Your task to perform on an android device: Clear the shopping cart on amazon. Search for panasonic triple a on amazon, select the first entry, add it to the cart, then select checkout. Image 0: 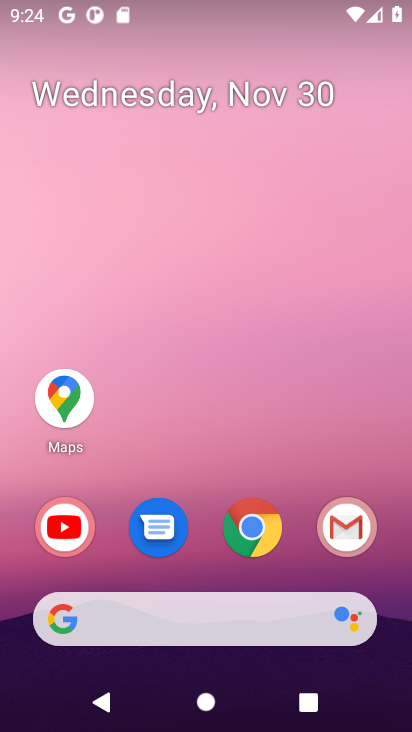
Step 0: click (247, 532)
Your task to perform on an android device: Clear the shopping cart on amazon. Search for panasonic triple a on amazon, select the first entry, add it to the cart, then select checkout. Image 1: 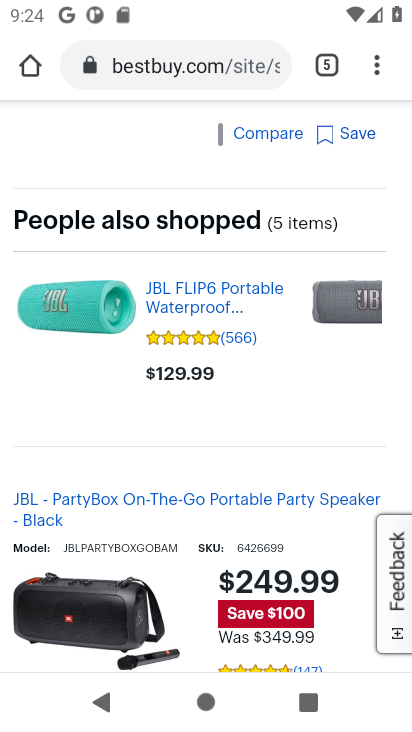
Step 1: click (203, 67)
Your task to perform on an android device: Clear the shopping cart on amazon. Search for panasonic triple a on amazon, select the first entry, add it to the cart, then select checkout. Image 2: 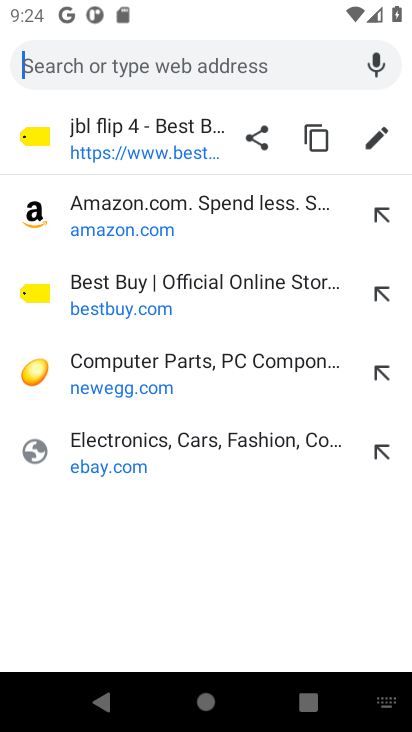
Step 2: click (166, 203)
Your task to perform on an android device: Clear the shopping cart on amazon. Search for panasonic triple a on amazon, select the first entry, add it to the cart, then select checkout. Image 3: 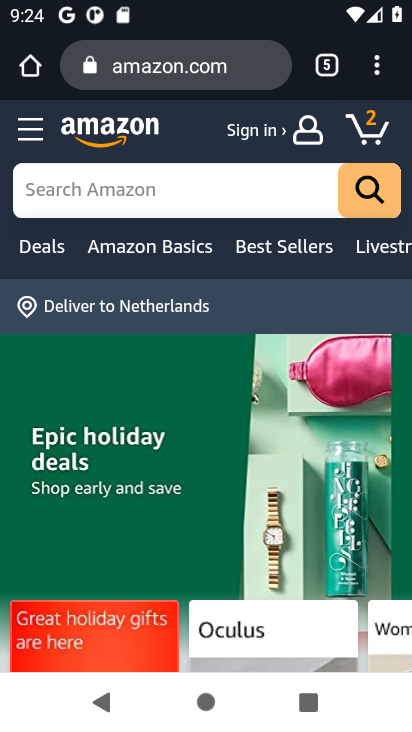
Step 3: click (368, 118)
Your task to perform on an android device: Clear the shopping cart on amazon. Search for panasonic triple a on amazon, select the first entry, add it to the cart, then select checkout. Image 4: 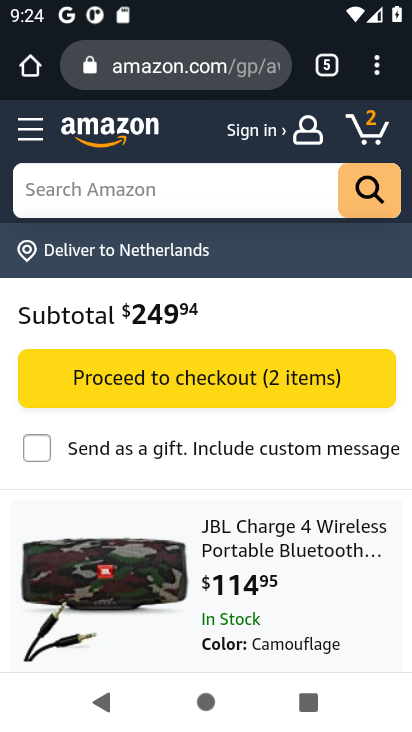
Step 4: drag from (316, 618) to (331, 183)
Your task to perform on an android device: Clear the shopping cart on amazon. Search for panasonic triple a on amazon, select the first entry, add it to the cart, then select checkout. Image 5: 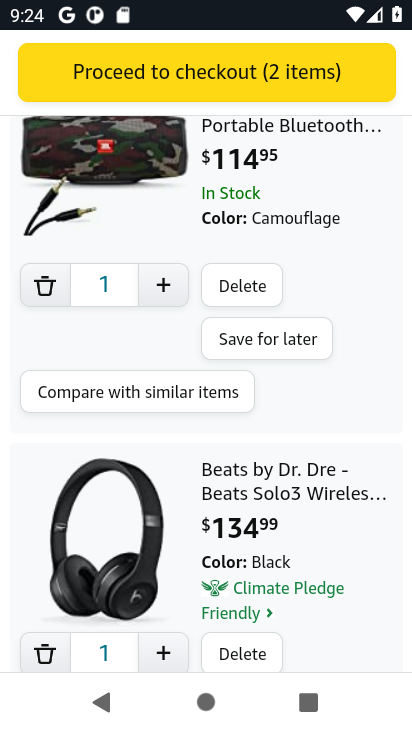
Step 5: click (232, 286)
Your task to perform on an android device: Clear the shopping cart on amazon. Search for panasonic triple a on amazon, select the first entry, add it to the cart, then select checkout. Image 6: 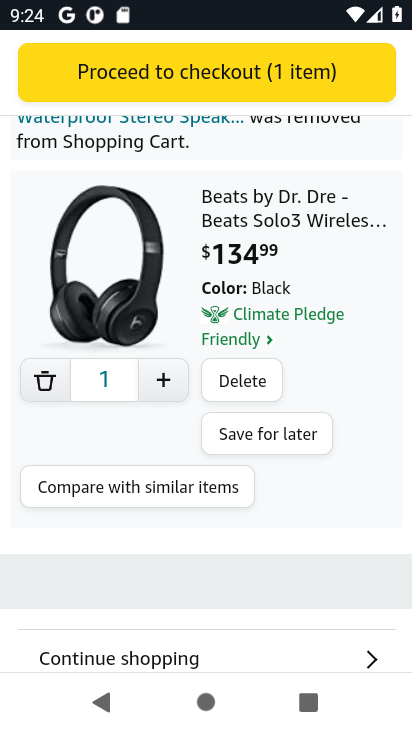
Step 6: click (253, 373)
Your task to perform on an android device: Clear the shopping cart on amazon. Search for panasonic triple a on amazon, select the first entry, add it to the cart, then select checkout. Image 7: 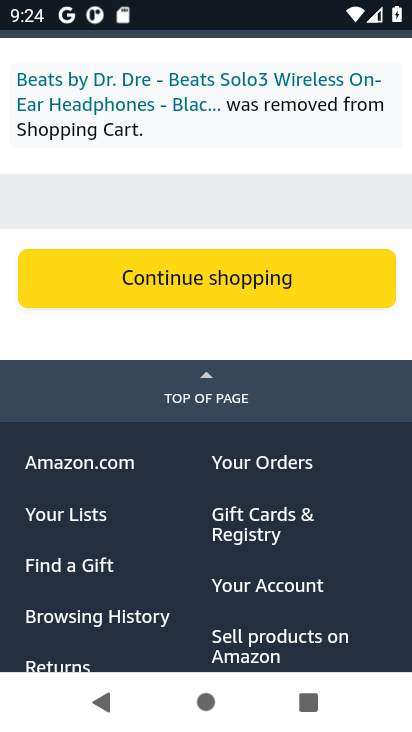
Step 7: drag from (333, 147) to (394, 709)
Your task to perform on an android device: Clear the shopping cart on amazon. Search for panasonic triple a on amazon, select the first entry, add it to the cart, then select checkout. Image 8: 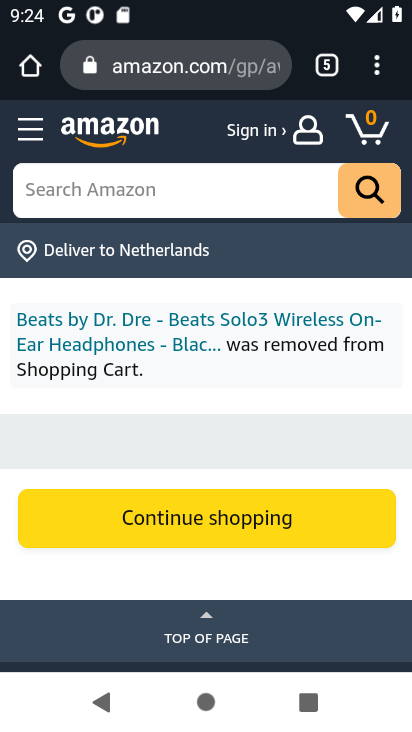
Step 8: click (303, 173)
Your task to perform on an android device: Clear the shopping cart on amazon. Search for panasonic triple a on amazon, select the first entry, add it to the cart, then select checkout. Image 9: 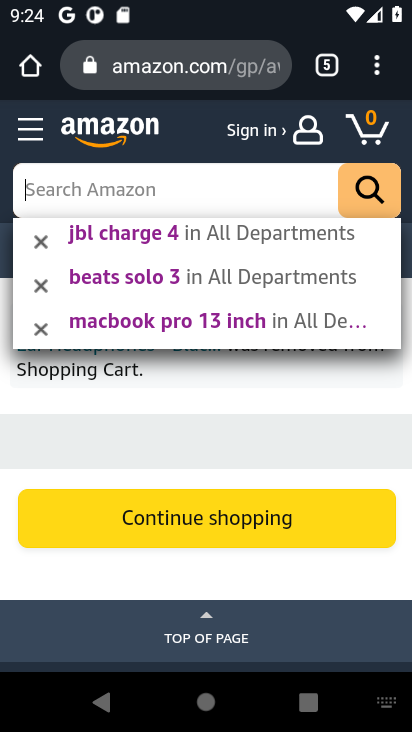
Step 9: type "panasonic triple a"
Your task to perform on an android device: Clear the shopping cart on amazon. Search for panasonic triple a on amazon, select the first entry, add it to the cart, then select checkout. Image 10: 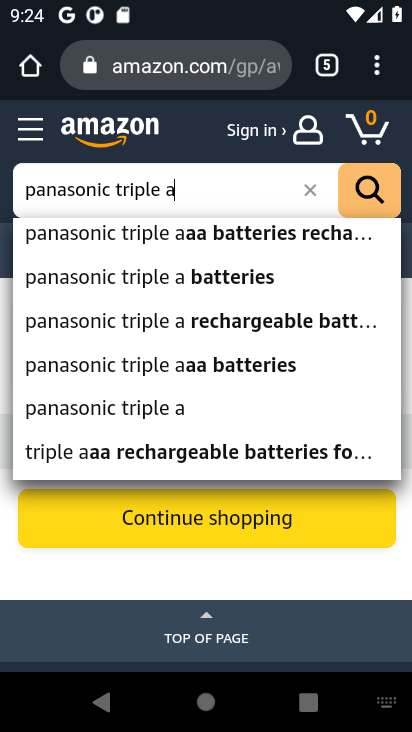
Step 10: press enter
Your task to perform on an android device: Clear the shopping cart on amazon. Search for panasonic triple a on amazon, select the first entry, add it to the cart, then select checkout. Image 11: 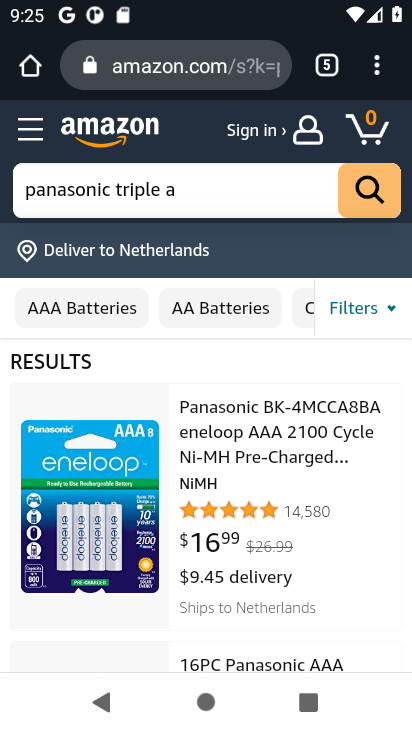
Step 11: click (93, 490)
Your task to perform on an android device: Clear the shopping cart on amazon. Search for panasonic triple a on amazon, select the first entry, add it to the cart, then select checkout. Image 12: 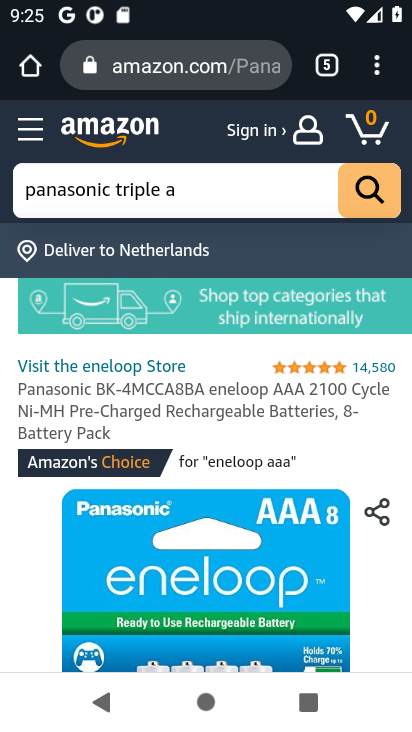
Step 12: drag from (357, 618) to (411, 93)
Your task to perform on an android device: Clear the shopping cart on amazon. Search for panasonic triple a on amazon, select the first entry, add it to the cart, then select checkout. Image 13: 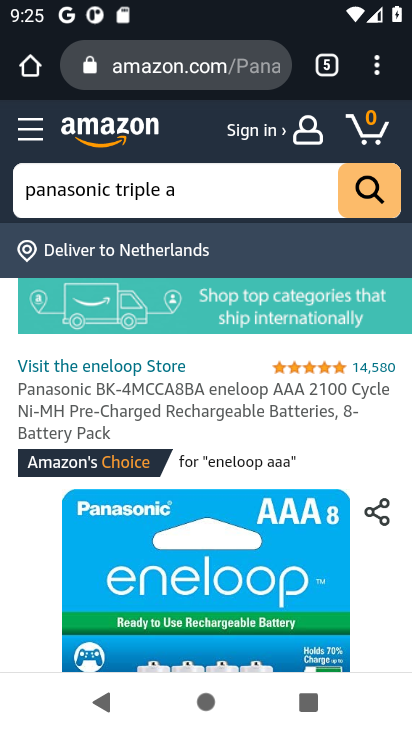
Step 13: drag from (276, 448) to (272, 1)
Your task to perform on an android device: Clear the shopping cart on amazon. Search for panasonic triple a on amazon, select the first entry, add it to the cart, then select checkout. Image 14: 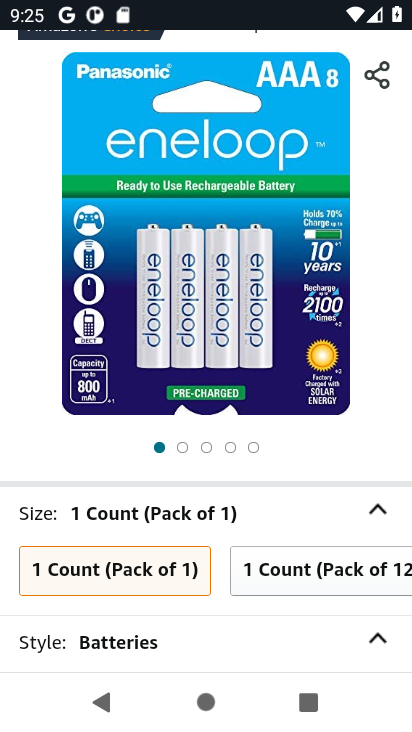
Step 14: drag from (275, 518) to (312, 122)
Your task to perform on an android device: Clear the shopping cart on amazon. Search for panasonic triple a on amazon, select the first entry, add it to the cart, then select checkout. Image 15: 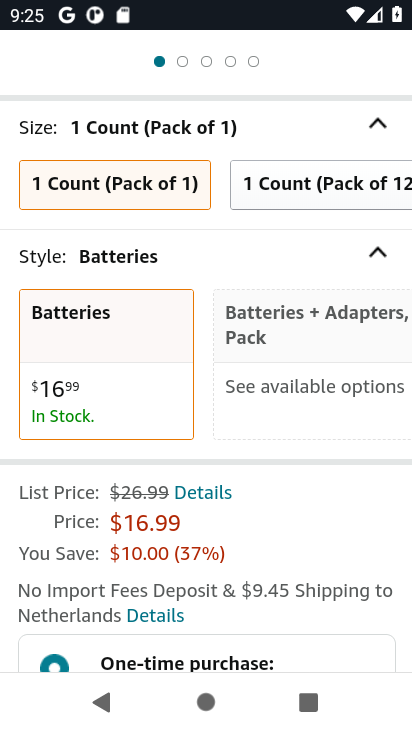
Step 15: drag from (356, 496) to (409, 41)
Your task to perform on an android device: Clear the shopping cart on amazon. Search for panasonic triple a on amazon, select the first entry, add it to the cart, then select checkout. Image 16: 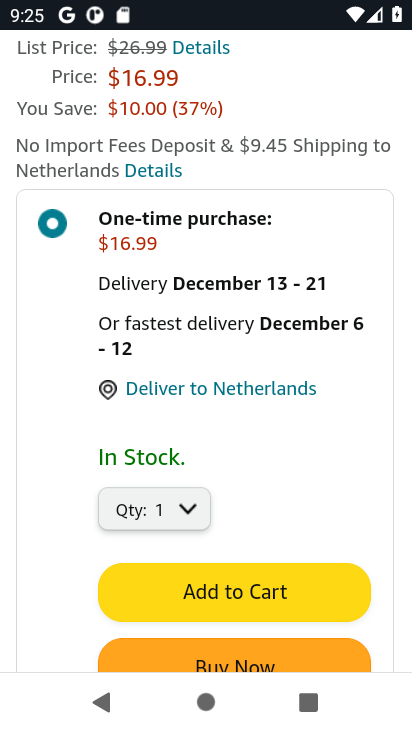
Step 16: click (247, 586)
Your task to perform on an android device: Clear the shopping cart on amazon. Search for panasonic triple a on amazon, select the first entry, add it to the cart, then select checkout. Image 17: 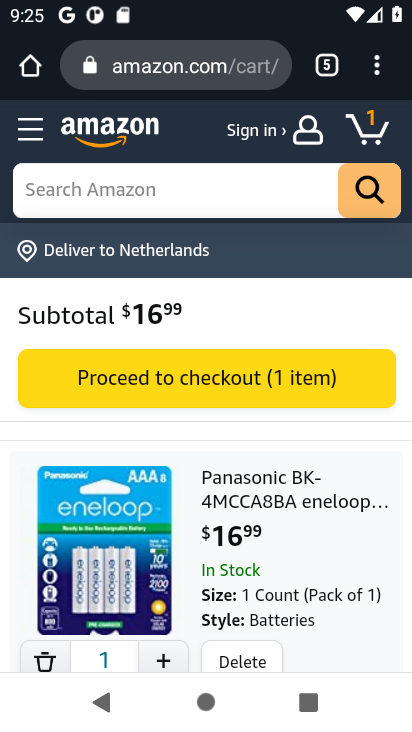
Step 17: click (228, 372)
Your task to perform on an android device: Clear the shopping cart on amazon. Search for panasonic triple a on amazon, select the first entry, add it to the cart, then select checkout. Image 18: 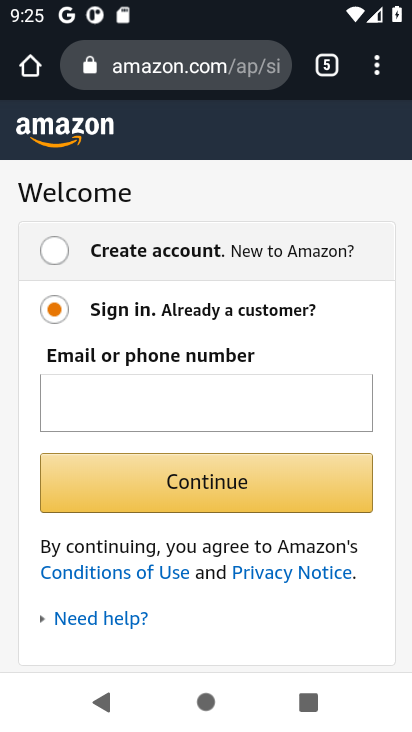
Step 18: task complete